Your task to perform on an android device: What's the weather going to be tomorrow? Image 0: 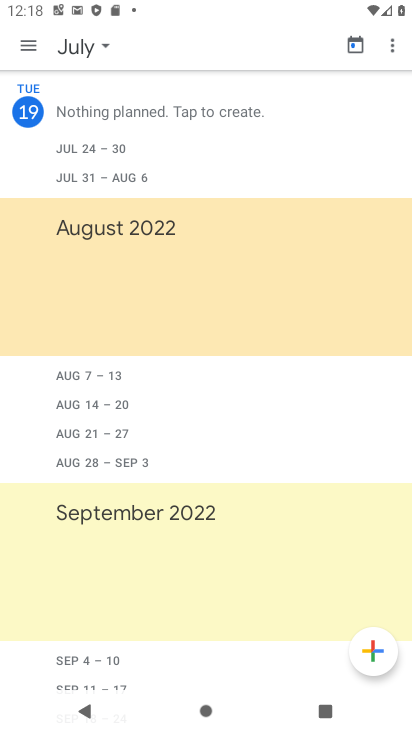
Step 0: press home button
Your task to perform on an android device: What's the weather going to be tomorrow? Image 1: 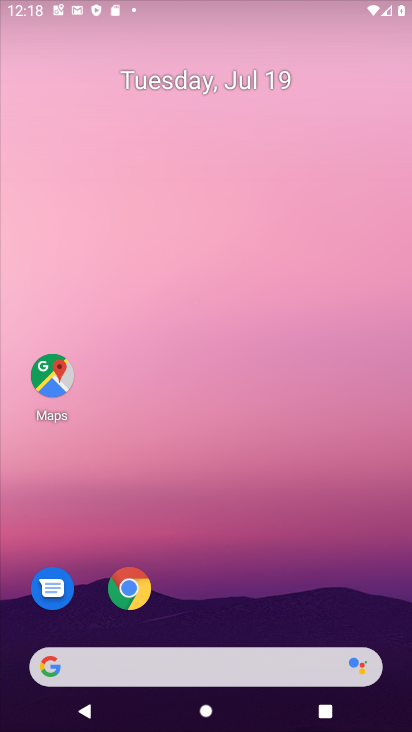
Step 1: drag from (384, 625) to (284, 62)
Your task to perform on an android device: What's the weather going to be tomorrow? Image 2: 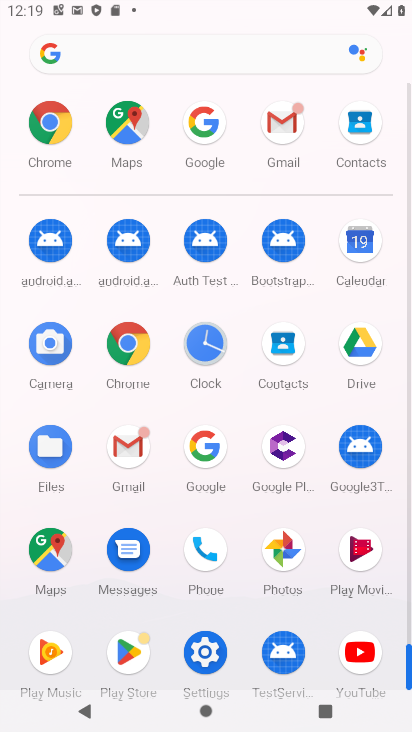
Step 2: click (205, 458)
Your task to perform on an android device: What's the weather going to be tomorrow? Image 3: 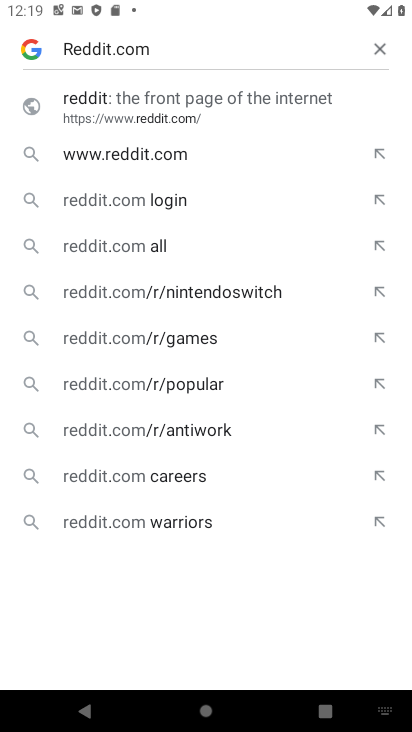
Step 3: click (370, 48)
Your task to perform on an android device: What's the weather going to be tomorrow? Image 4: 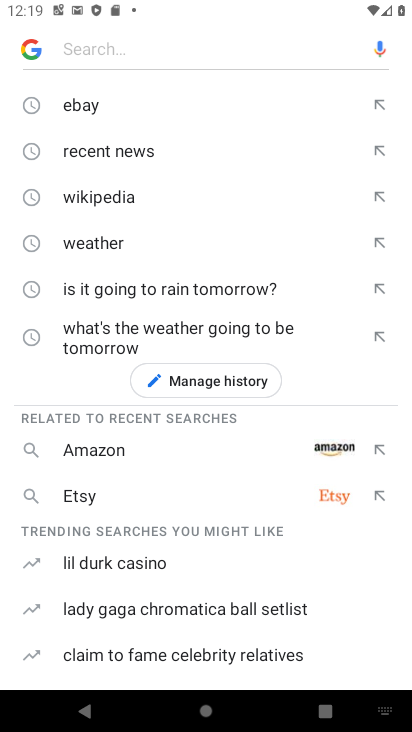
Step 4: click (171, 332)
Your task to perform on an android device: What's the weather going to be tomorrow? Image 5: 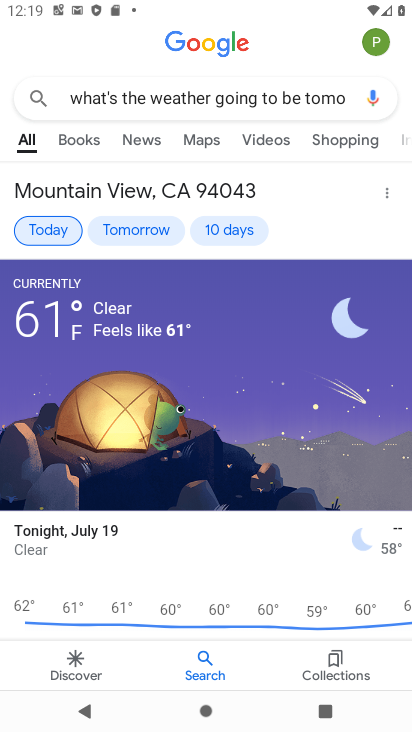
Step 5: task complete